Your task to perform on an android device: turn off location Image 0: 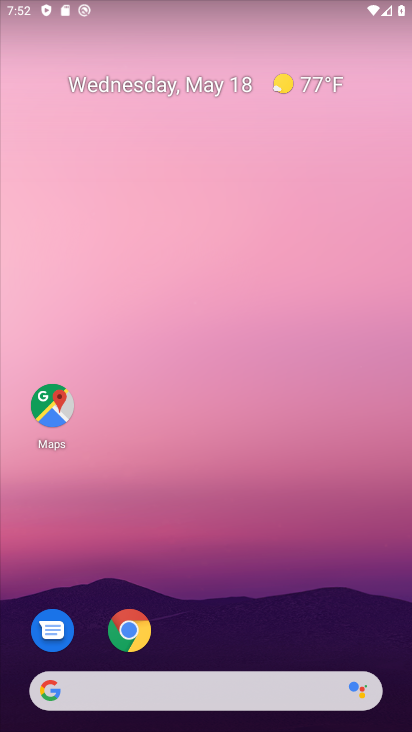
Step 0: drag from (200, 639) to (251, 159)
Your task to perform on an android device: turn off location Image 1: 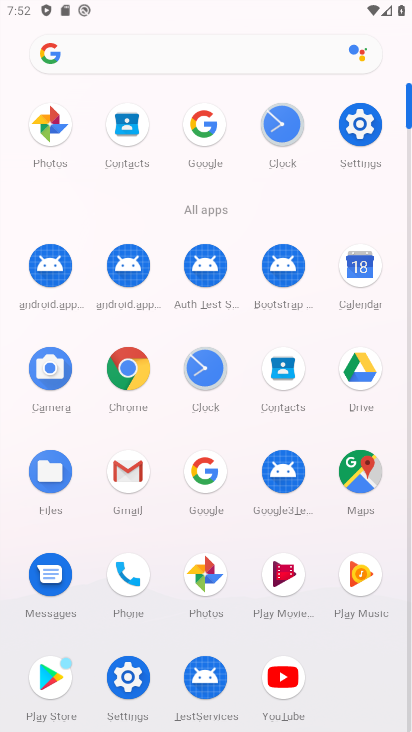
Step 1: click (374, 138)
Your task to perform on an android device: turn off location Image 2: 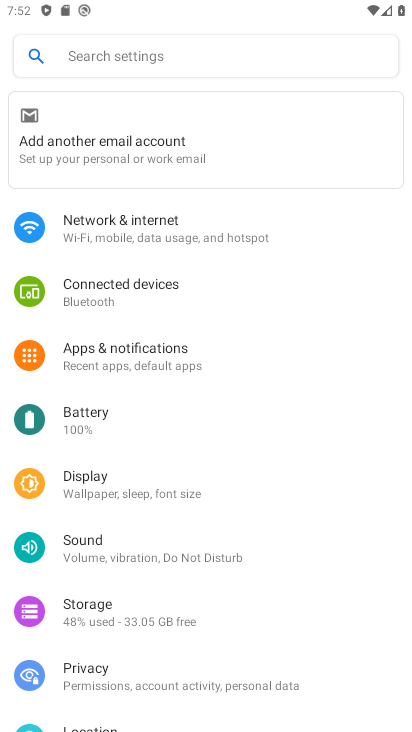
Step 2: drag from (201, 633) to (248, 263)
Your task to perform on an android device: turn off location Image 3: 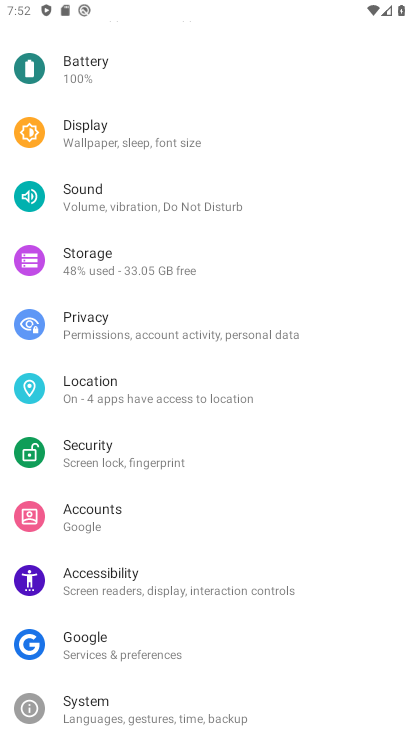
Step 3: click (212, 392)
Your task to perform on an android device: turn off location Image 4: 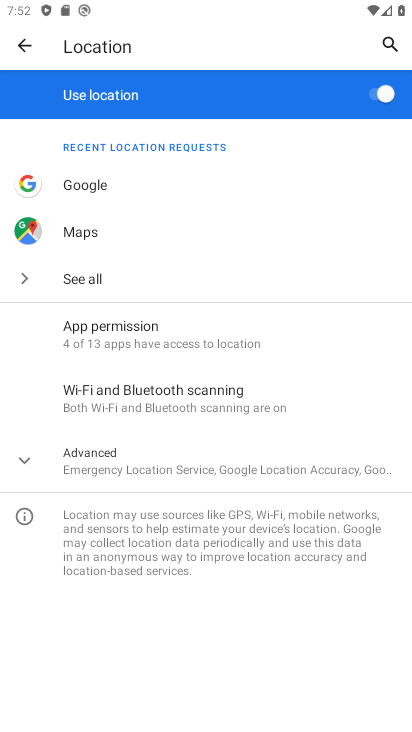
Step 4: click (390, 97)
Your task to perform on an android device: turn off location Image 5: 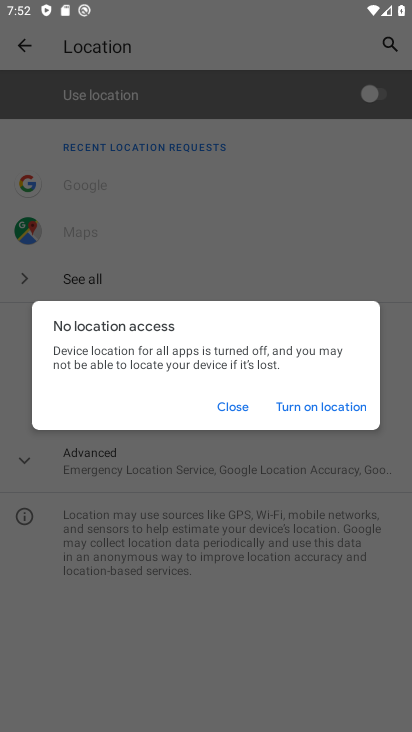
Step 5: task complete